Your task to perform on an android device: open chrome privacy settings Image 0: 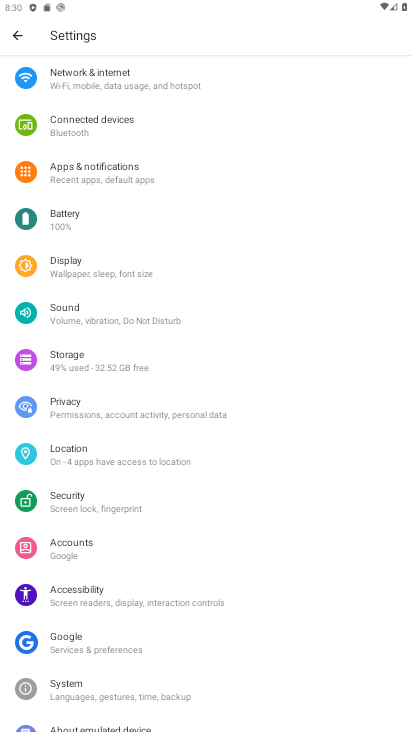
Step 0: press home button
Your task to perform on an android device: open chrome privacy settings Image 1: 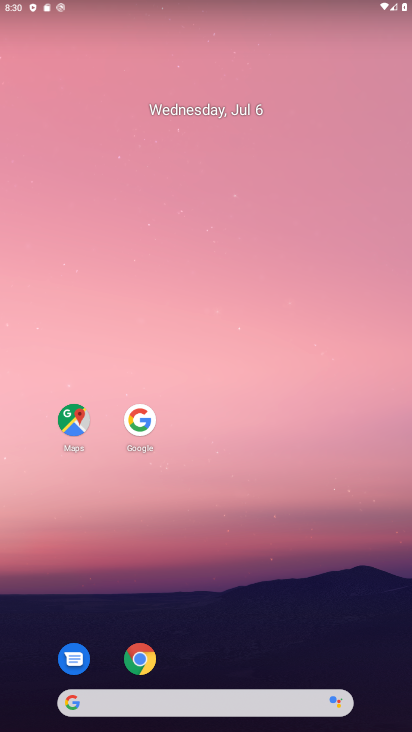
Step 1: drag from (238, 662) to (205, 182)
Your task to perform on an android device: open chrome privacy settings Image 2: 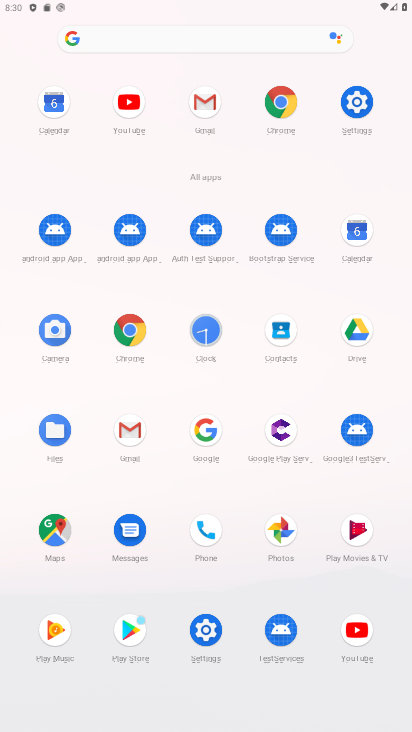
Step 2: click (129, 329)
Your task to perform on an android device: open chrome privacy settings Image 3: 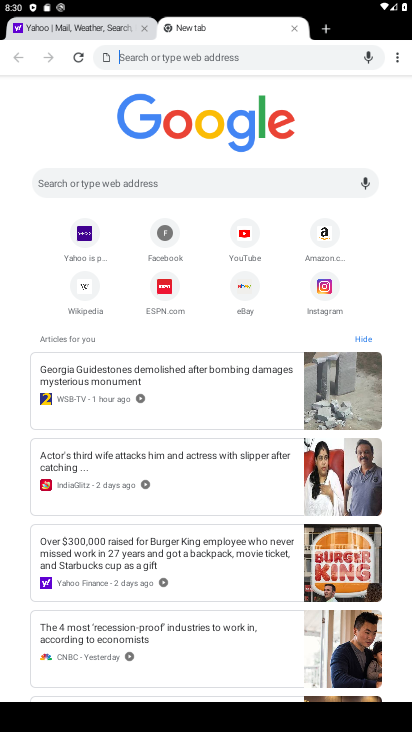
Step 3: click (396, 59)
Your task to perform on an android device: open chrome privacy settings Image 4: 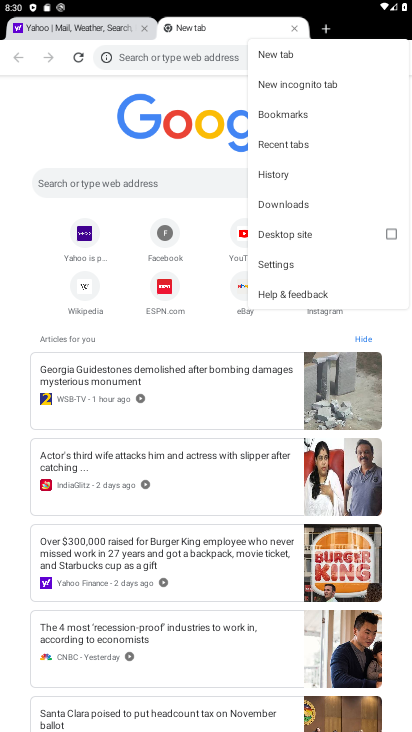
Step 4: click (282, 266)
Your task to perform on an android device: open chrome privacy settings Image 5: 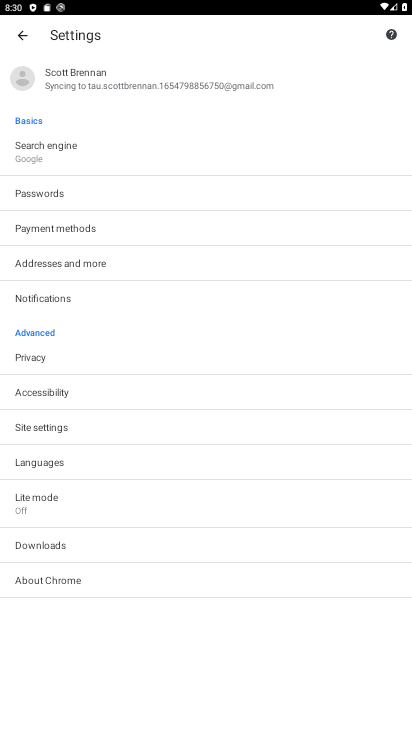
Step 5: click (20, 359)
Your task to perform on an android device: open chrome privacy settings Image 6: 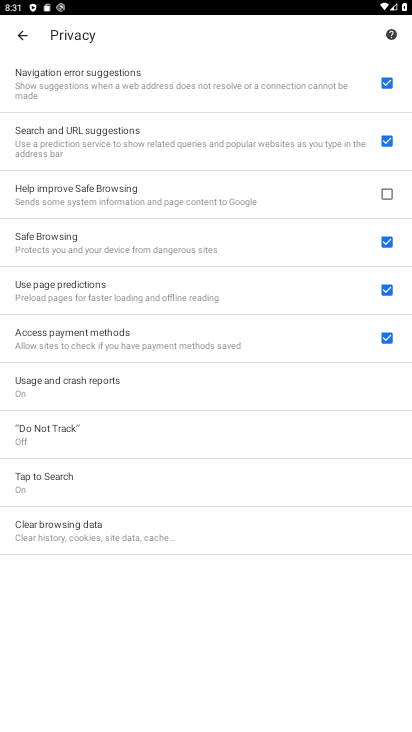
Step 6: task complete